Your task to perform on an android device: Search for "usb-c to usb-b" on bestbuy.com, select the first entry, add it to the cart, then select checkout. Image 0: 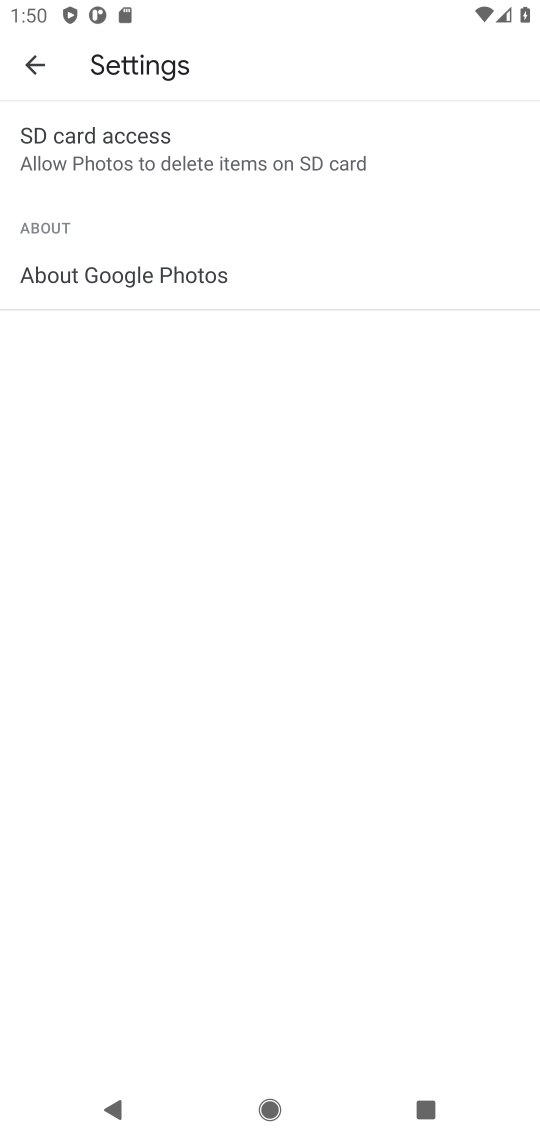
Step 0: press home button
Your task to perform on an android device: Search for "usb-c to usb-b" on bestbuy.com, select the first entry, add it to the cart, then select checkout. Image 1: 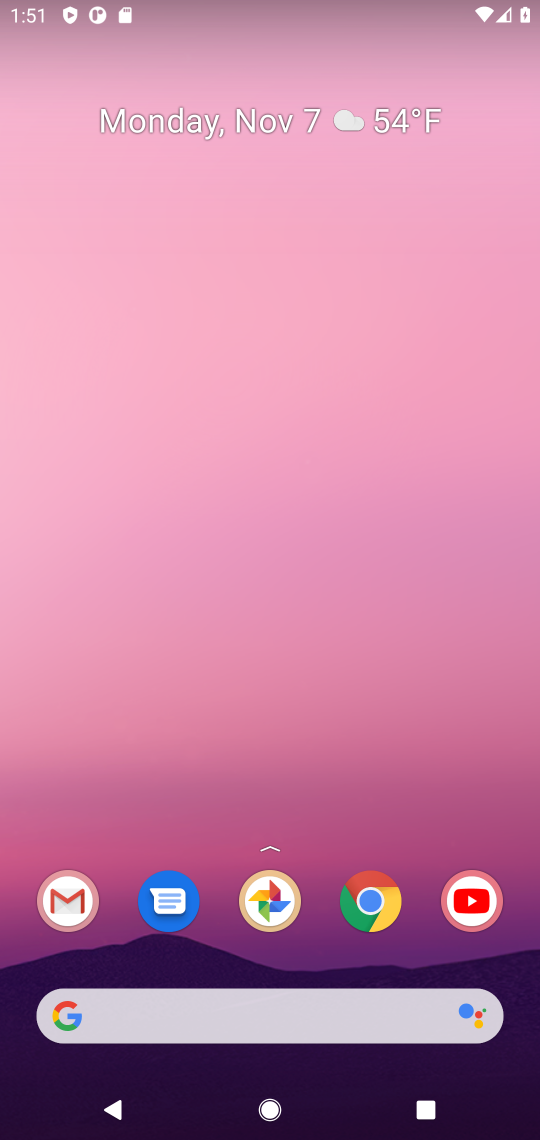
Step 1: click (374, 911)
Your task to perform on an android device: Search for "usb-c to usb-b" on bestbuy.com, select the first entry, add it to the cart, then select checkout. Image 2: 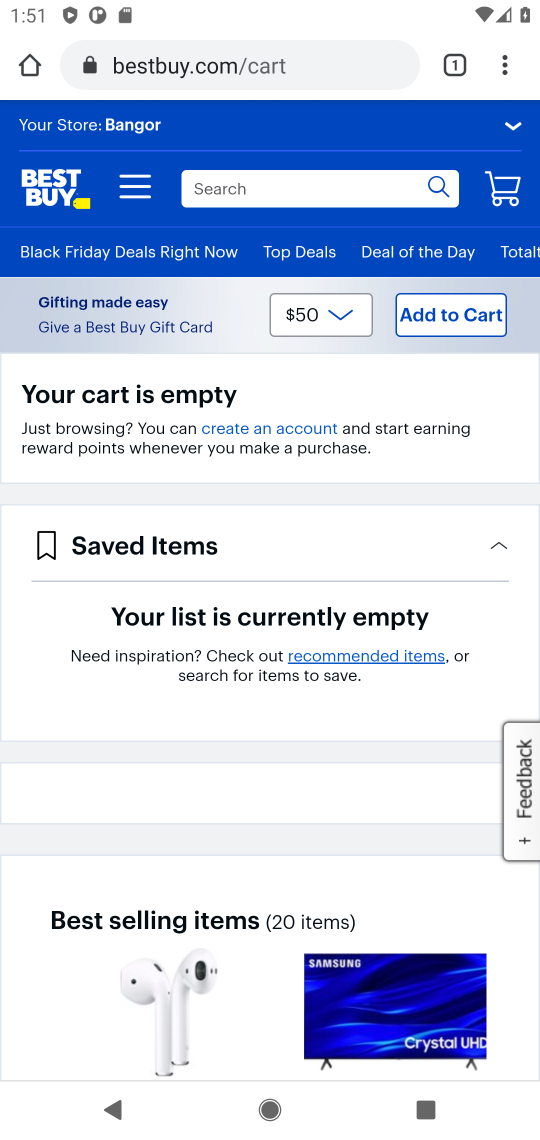
Step 2: click (238, 192)
Your task to perform on an android device: Search for "usb-c to usb-b" on bestbuy.com, select the first entry, add it to the cart, then select checkout. Image 3: 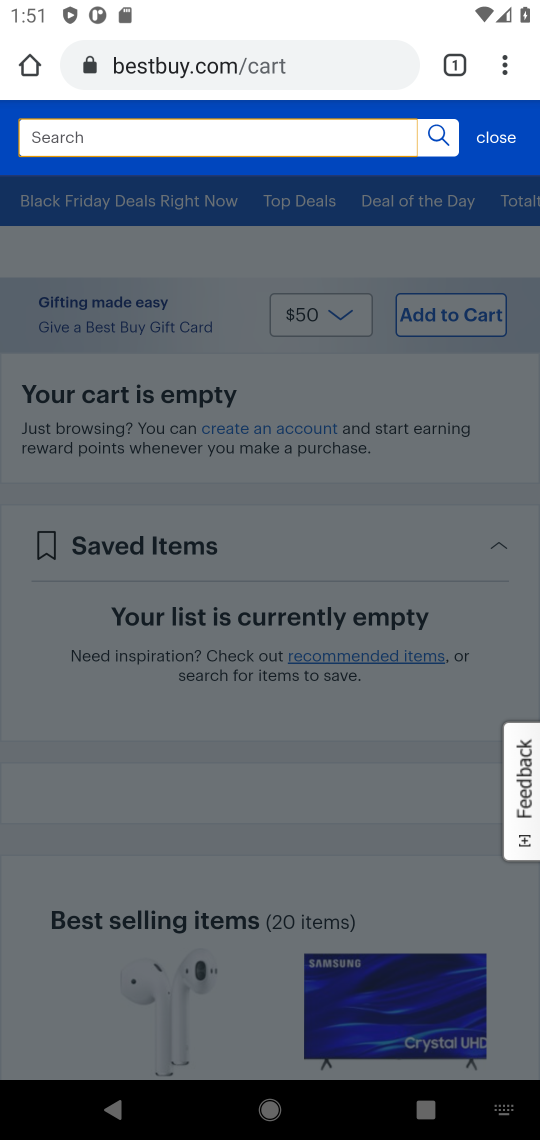
Step 3: type "usb-c to usb-b"
Your task to perform on an android device: Search for "usb-c to usb-b" on bestbuy.com, select the first entry, add it to the cart, then select checkout. Image 4: 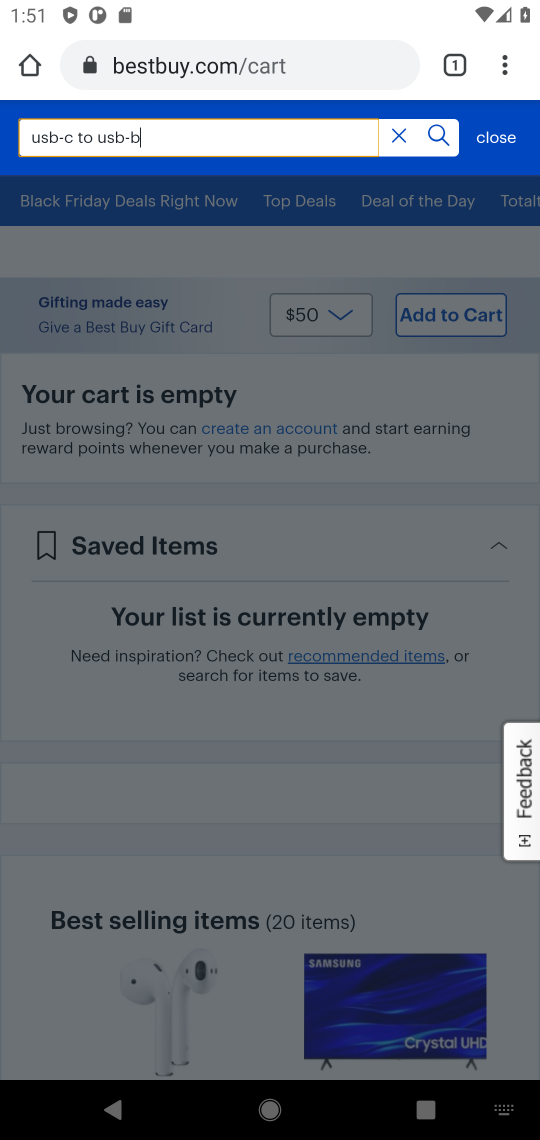
Step 4: click (443, 136)
Your task to perform on an android device: Search for "usb-c to usb-b" on bestbuy.com, select the first entry, add it to the cart, then select checkout. Image 5: 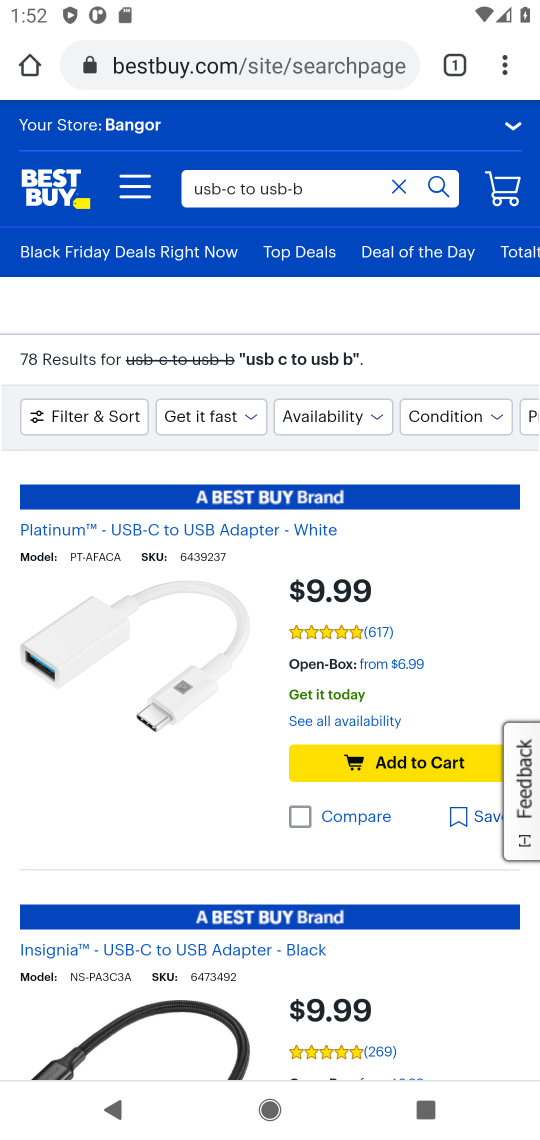
Step 5: task complete